Your task to perform on an android device: toggle show notifications on the lock screen Image 0: 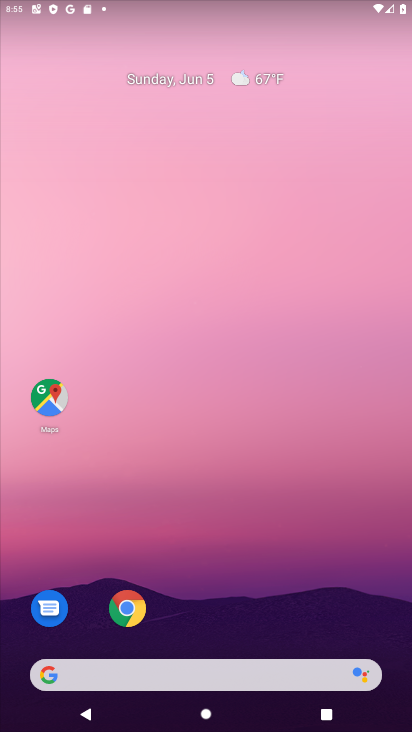
Step 0: drag from (73, 431) to (242, 138)
Your task to perform on an android device: toggle show notifications on the lock screen Image 1: 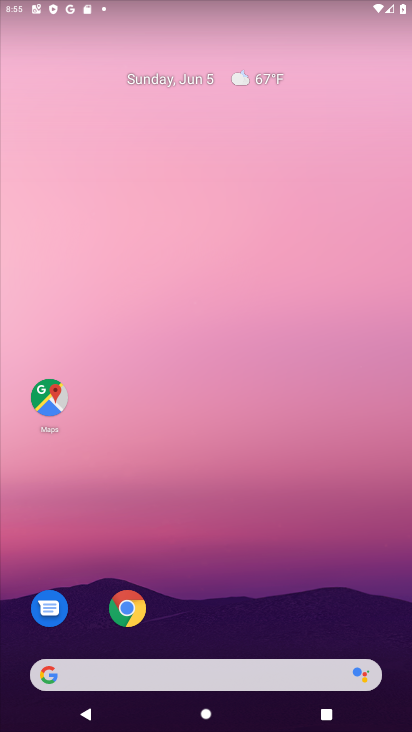
Step 1: drag from (47, 572) to (402, 60)
Your task to perform on an android device: toggle show notifications on the lock screen Image 2: 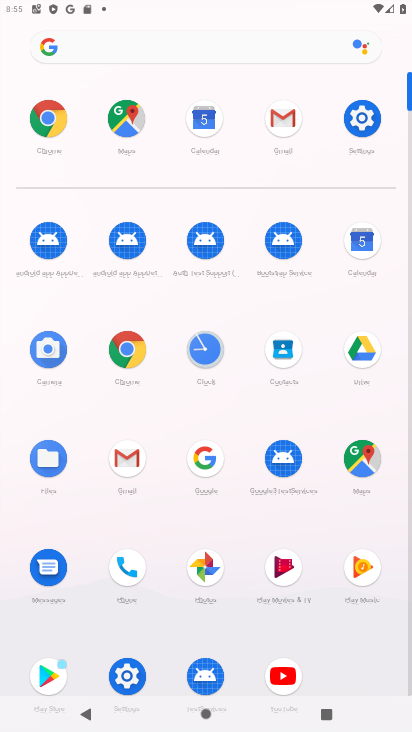
Step 2: click (374, 130)
Your task to perform on an android device: toggle show notifications on the lock screen Image 3: 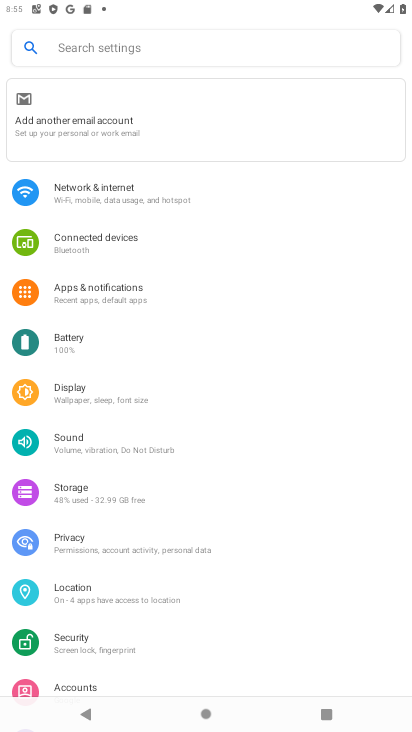
Step 3: click (138, 299)
Your task to perform on an android device: toggle show notifications on the lock screen Image 4: 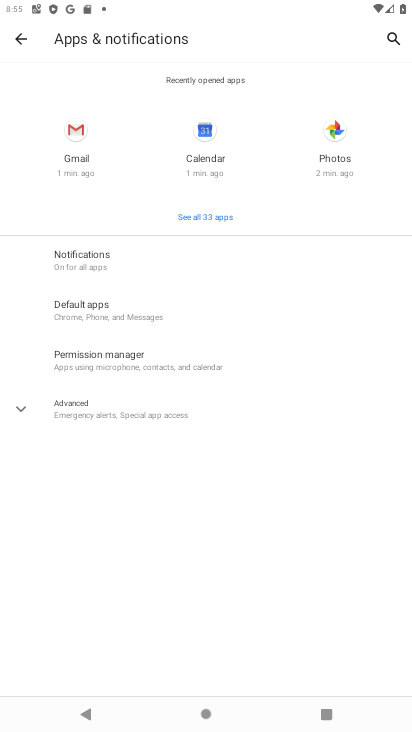
Step 4: click (152, 264)
Your task to perform on an android device: toggle show notifications on the lock screen Image 5: 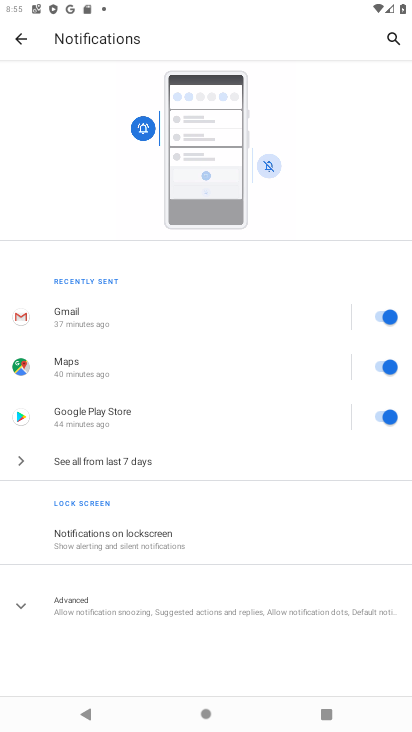
Step 5: click (166, 539)
Your task to perform on an android device: toggle show notifications on the lock screen Image 6: 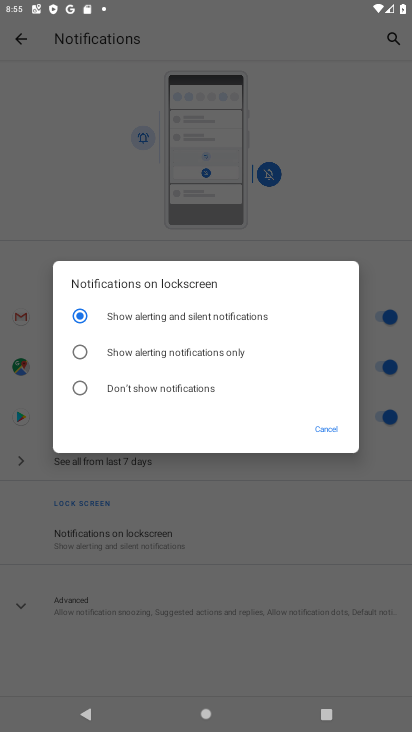
Step 6: click (87, 391)
Your task to perform on an android device: toggle show notifications on the lock screen Image 7: 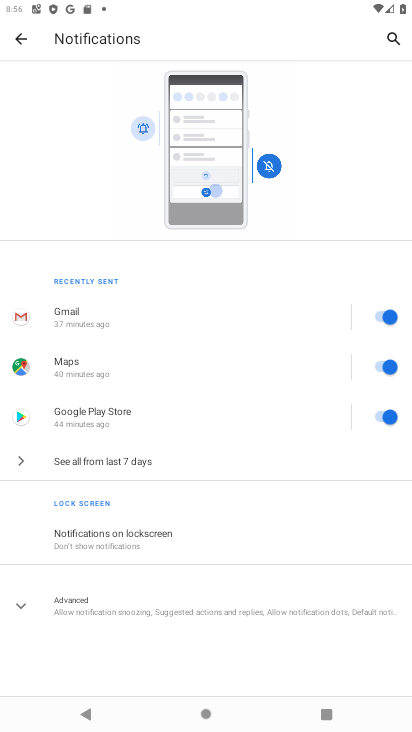
Step 7: task complete